Your task to perform on an android device: turn off data saver in the chrome app Image 0: 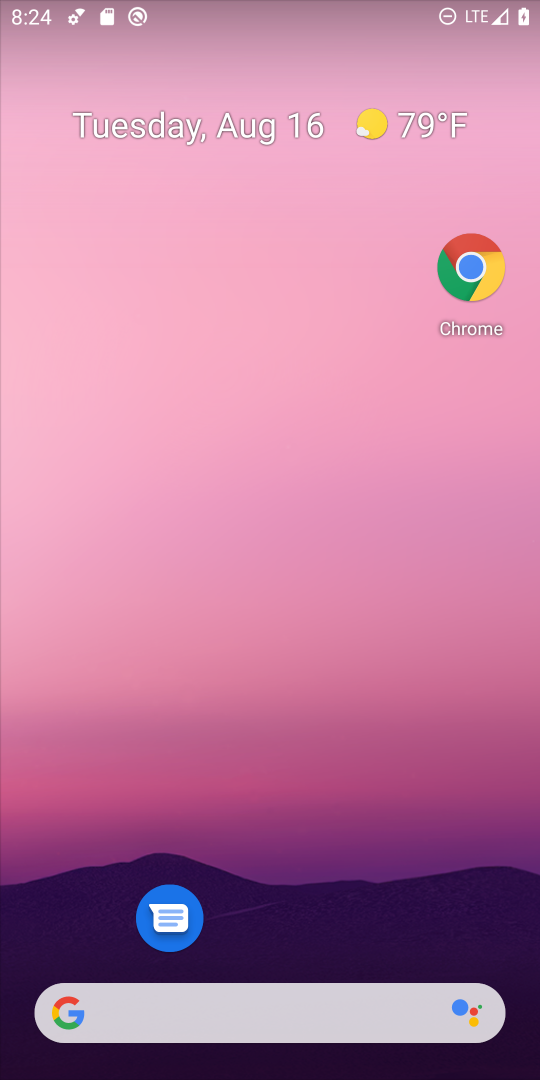
Step 0: drag from (274, 988) to (352, 142)
Your task to perform on an android device: turn off data saver in the chrome app Image 1: 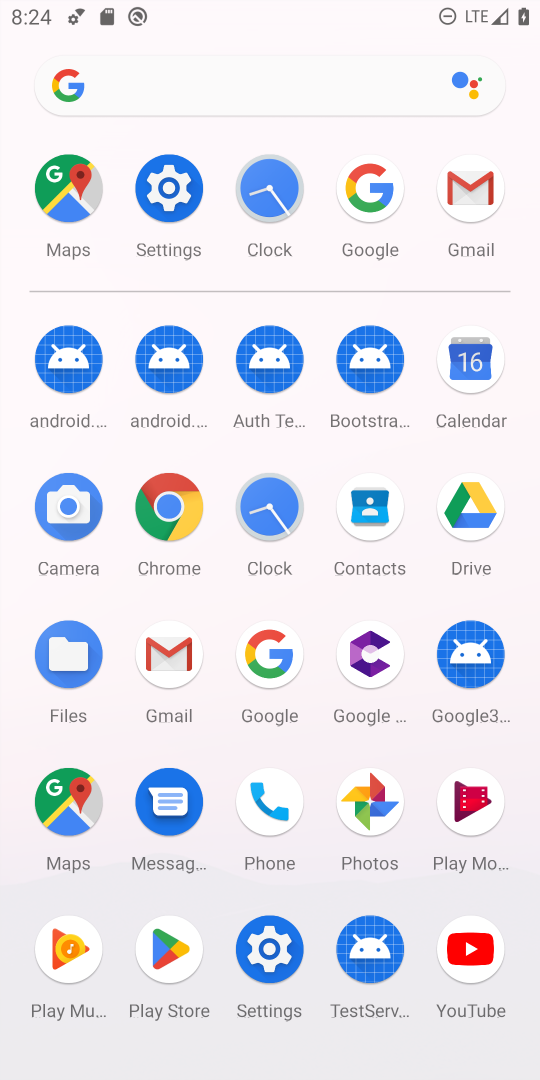
Step 1: click (167, 533)
Your task to perform on an android device: turn off data saver in the chrome app Image 2: 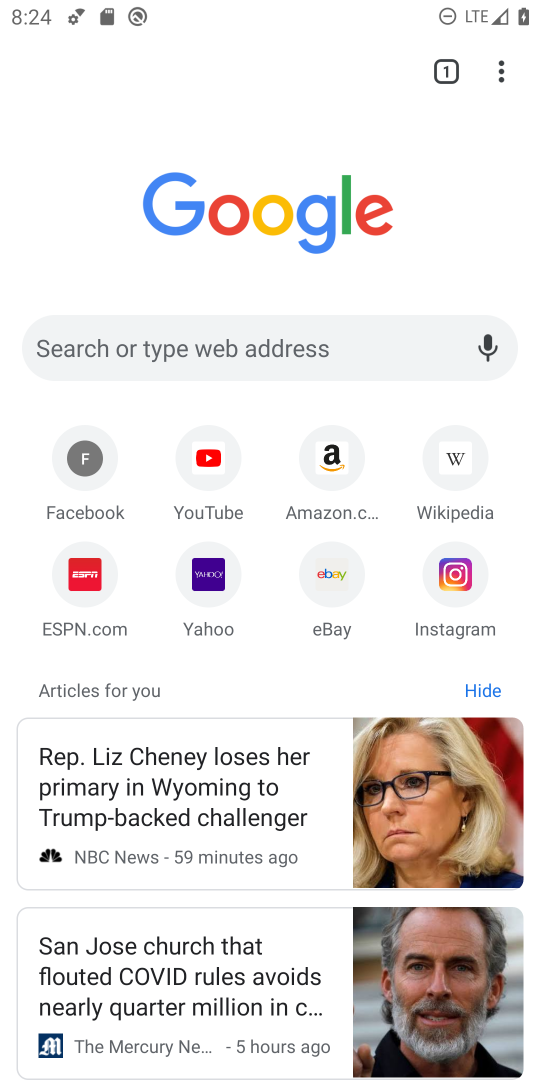
Step 2: click (502, 67)
Your task to perform on an android device: turn off data saver in the chrome app Image 3: 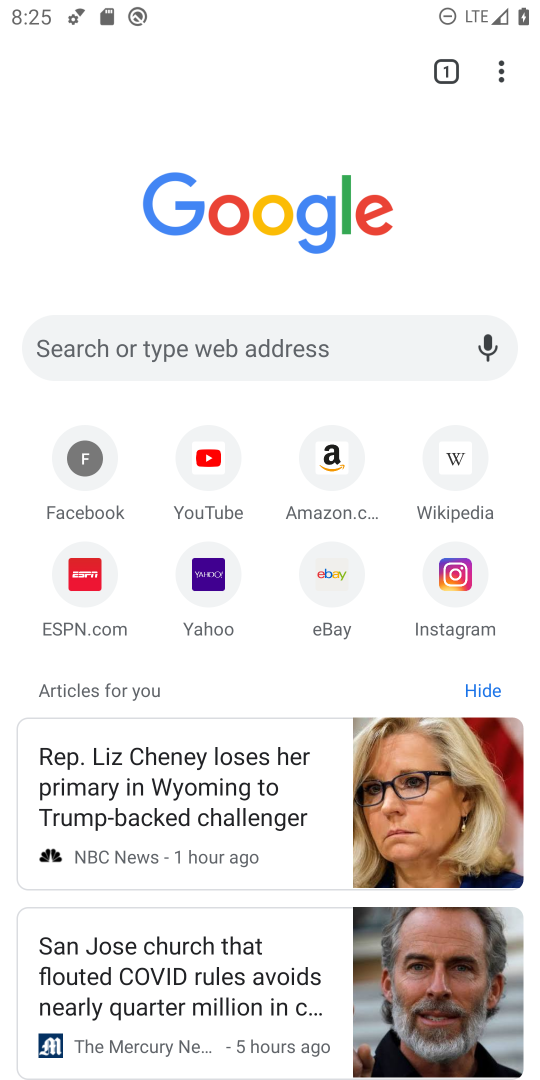
Step 3: click (504, 77)
Your task to perform on an android device: turn off data saver in the chrome app Image 4: 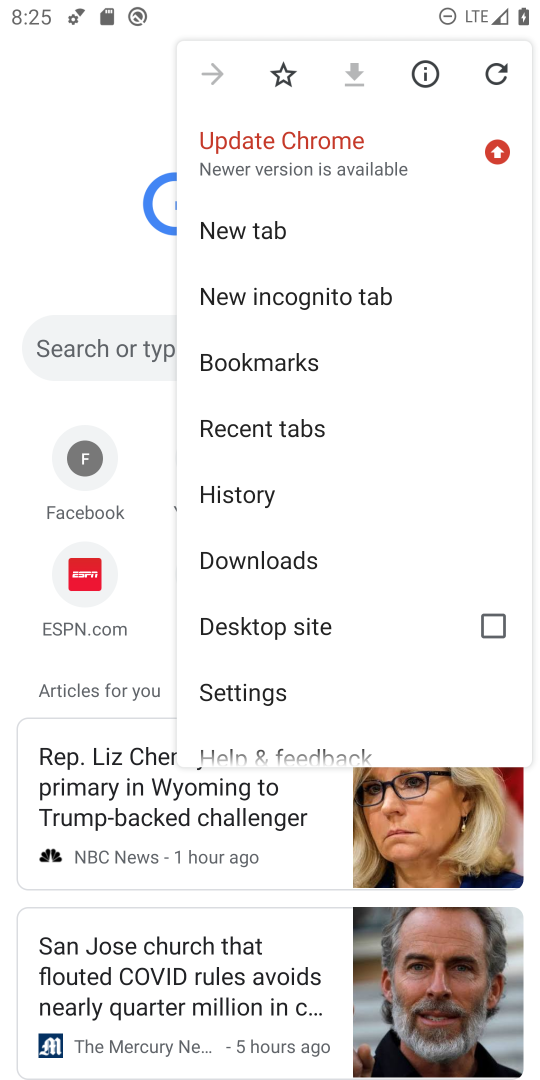
Step 4: click (252, 694)
Your task to perform on an android device: turn off data saver in the chrome app Image 5: 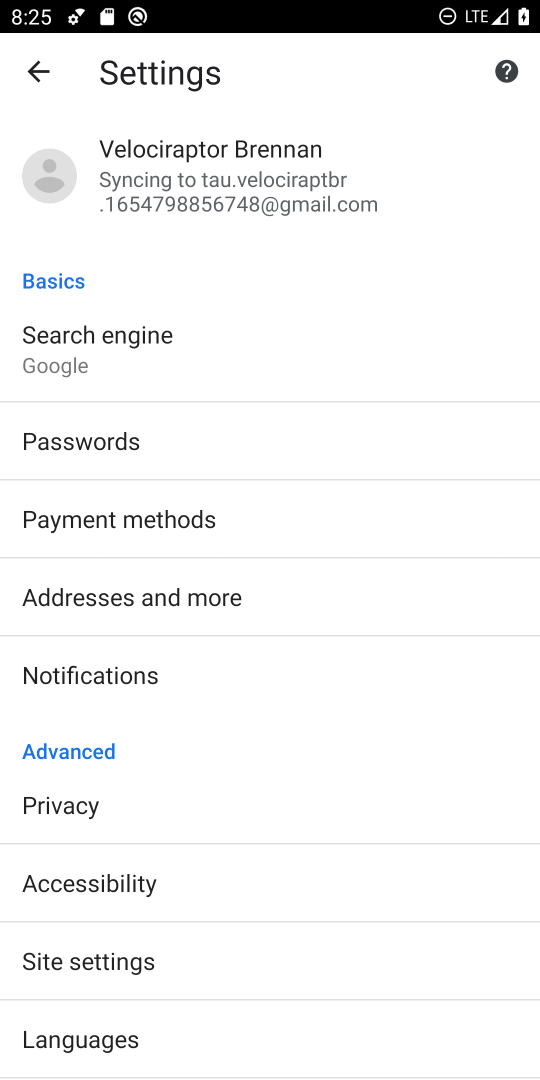
Step 5: drag from (166, 910) to (180, 194)
Your task to perform on an android device: turn off data saver in the chrome app Image 6: 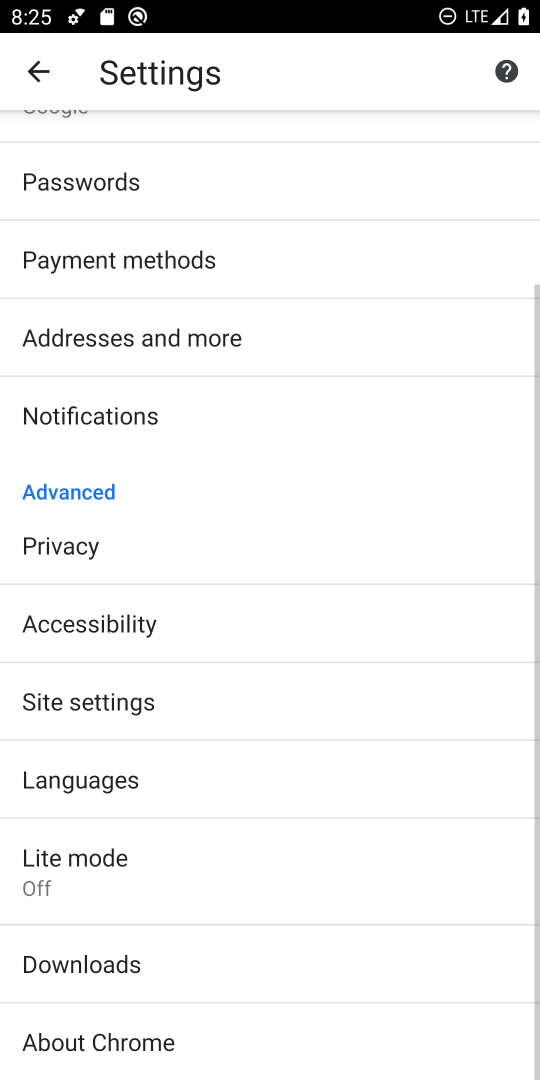
Step 6: click (97, 864)
Your task to perform on an android device: turn off data saver in the chrome app Image 7: 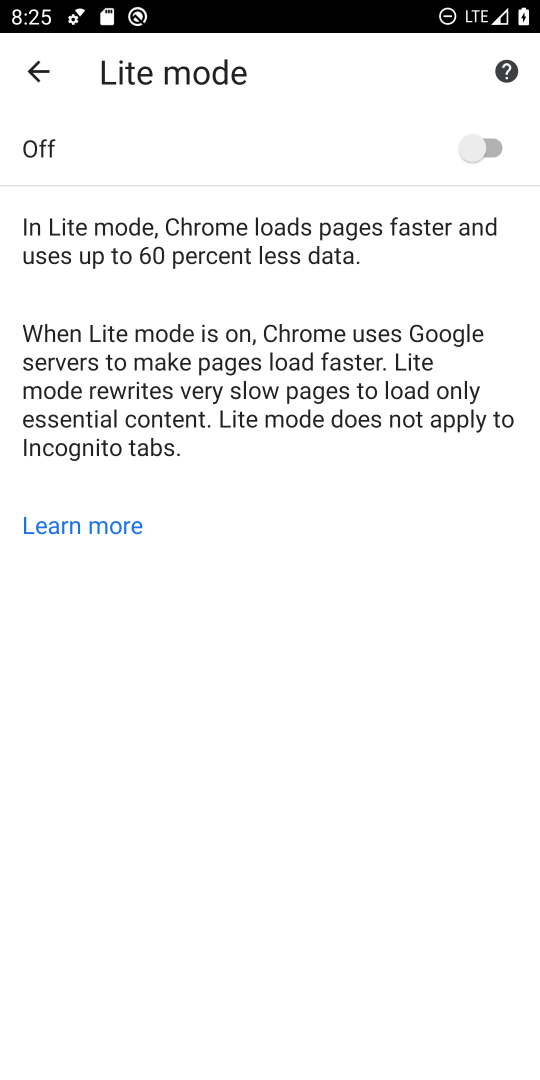
Step 7: task complete